Your task to perform on an android device: Open Google Maps Image 0: 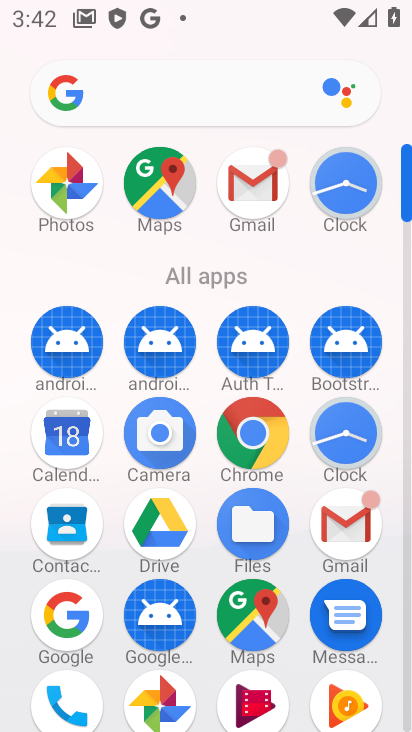
Step 0: click (176, 191)
Your task to perform on an android device: Open Google Maps Image 1: 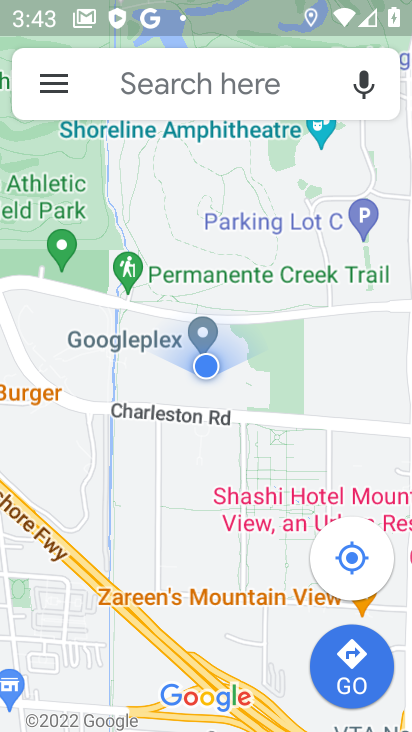
Step 1: task complete